Your task to perform on an android device: Open Google Maps Image 0: 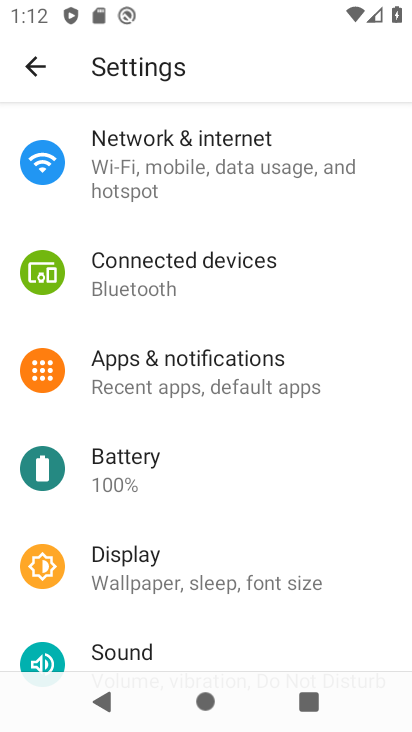
Step 0: press home button
Your task to perform on an android device: Open Google Maps Image 1: 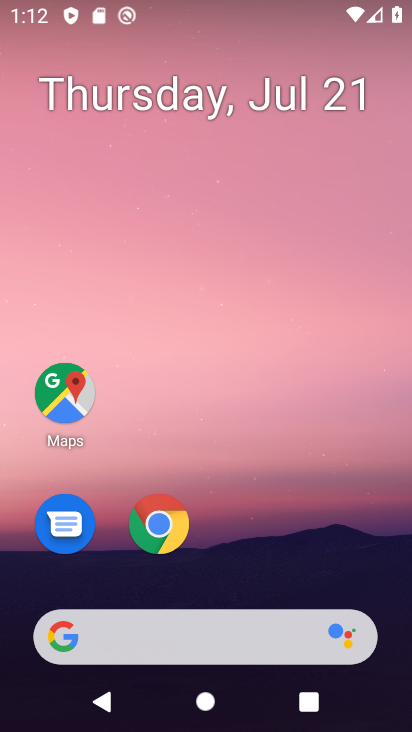
Step 1: click (63, 386)
Your task to perform on an android device: Open Google Maps Image 2: 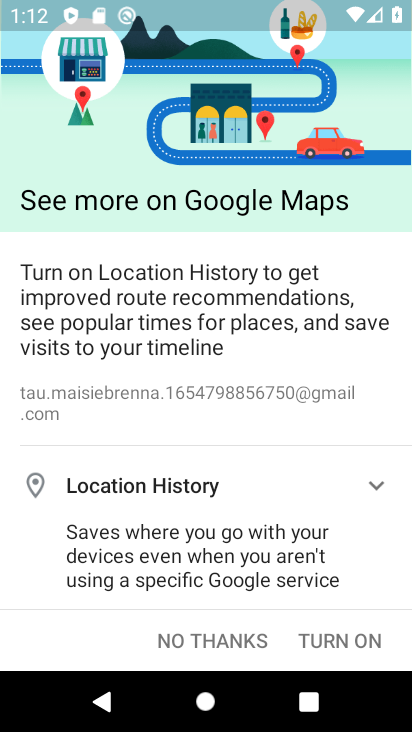
Step 2: click (367, 631)
Your task to perform on an android device: Open Google Maps Image 3: 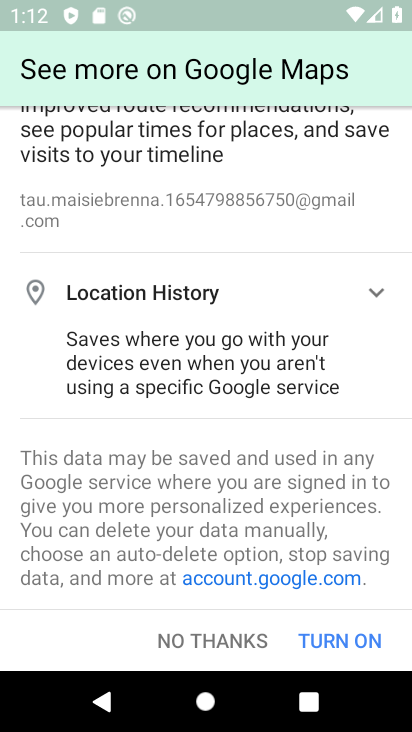
Step 3: click (365, 638)
Your task to perform on an android device: Open Google Maps Image 4: 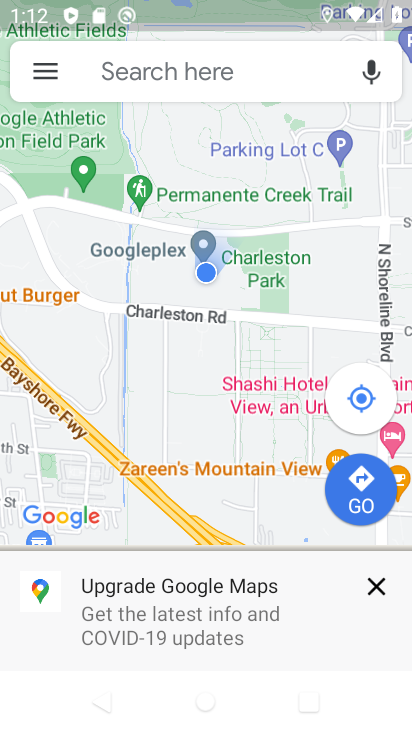
Step 4: task complete